Your task to perform on an android device: toggle airplane mode Image 0: 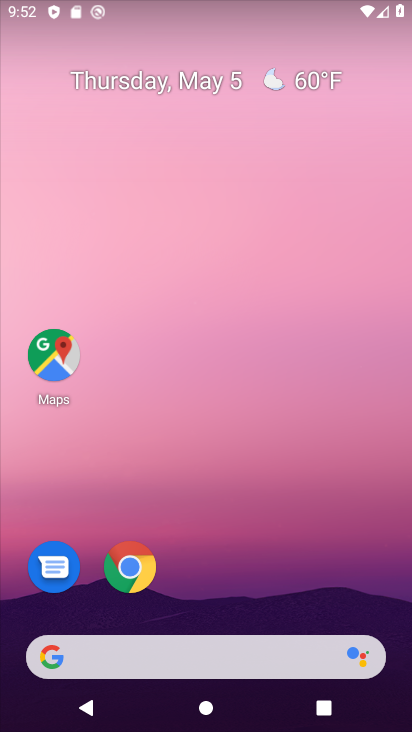
Step 0: drag from (222, 601) to (197, 160)
Your task to perform on an android device: toggle airplane mode Image 1: 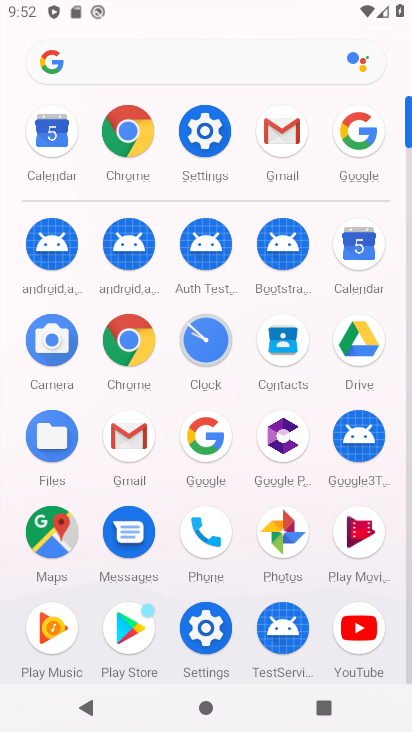
Step 1: click (197, 156)
Your task to perform on an android device: toggle airplane mode Image 2: 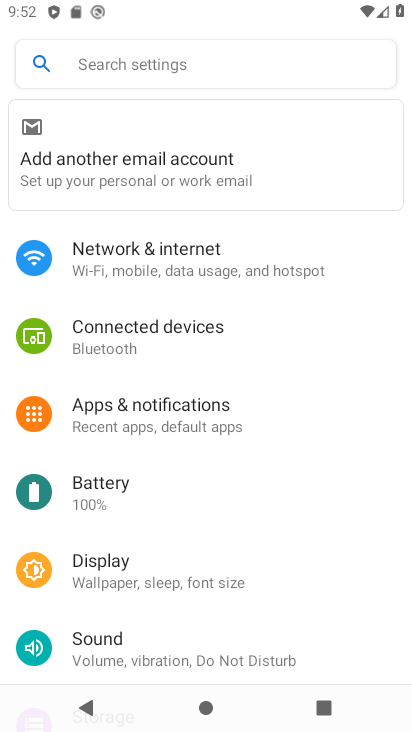
Step 2: click (241, 281)
Your task to perform on an android device: toggle airplane mode Image 3: 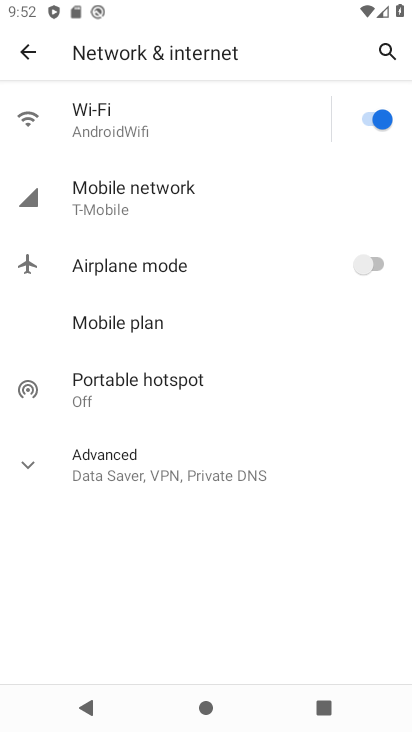
Step 3: click (381, 264)
Your task to perform on an android device: toggle airplane mode Image 4: 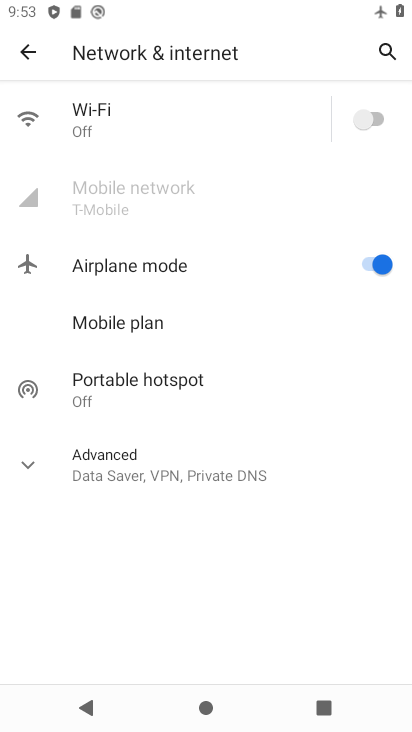
Step 4: task complete